Your task to perform on an android device: toggle notifications settings in the gmail app Image 0: 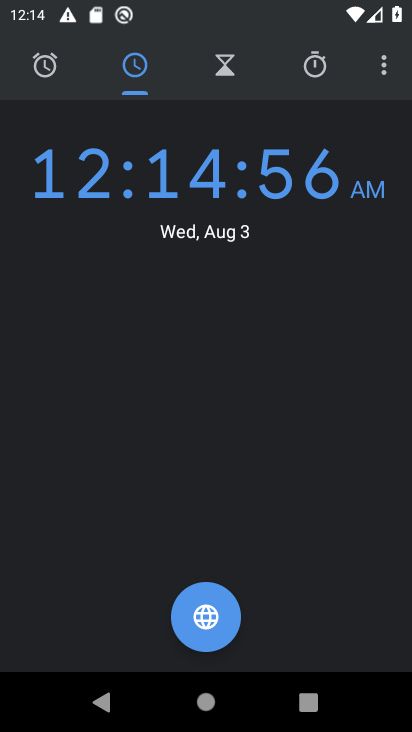
Step 0: press home button
Your task to perform on an android device: toggle notifications settings in the gmail app Image 1: 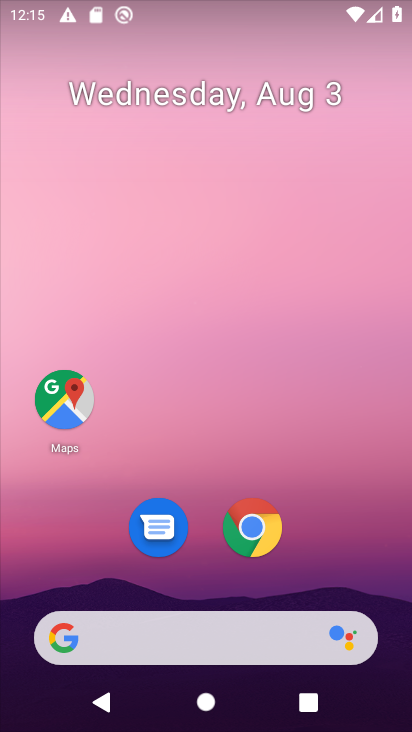
Step 1: drag from (40, 664) to (210, 191)
Your task to perform on an android device: toggle notifications settings in the gmail app Image 2: 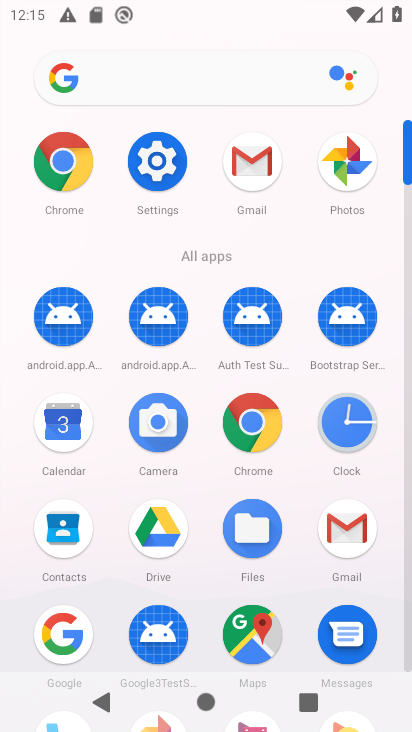
Step 2: click (321, 532)
Your task to perform on an android device: toggle notifications settings in the gmail app Image 3: 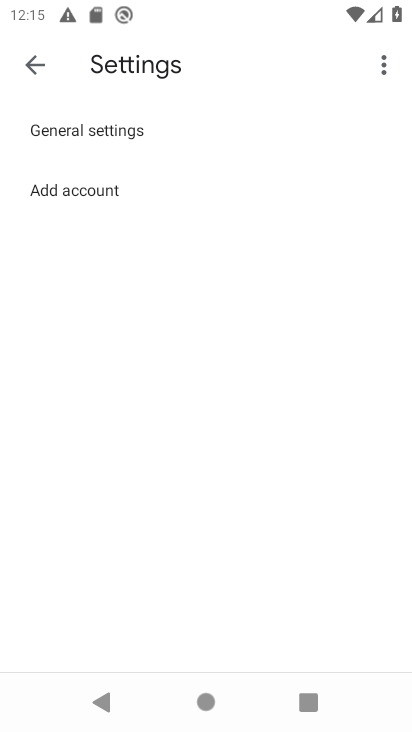
Step 3: click (21, 72)
Your task to perform on an android device: toggle notifications settings in the gmail app Image 4: 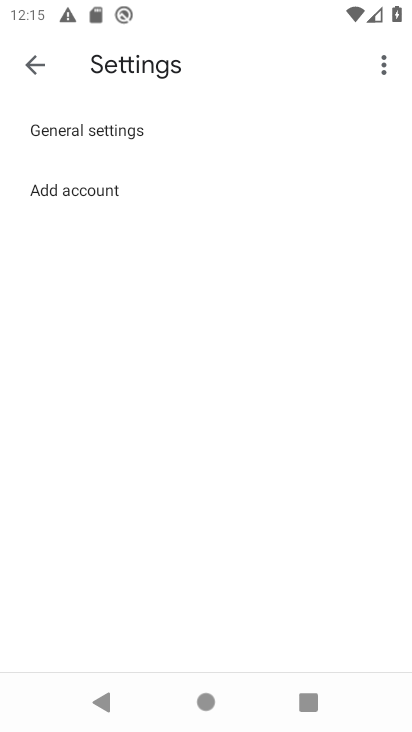
Step 4: click (32, 69)
Your task to perform on an android device: toggle notifications settings in the gmail app Image 5: 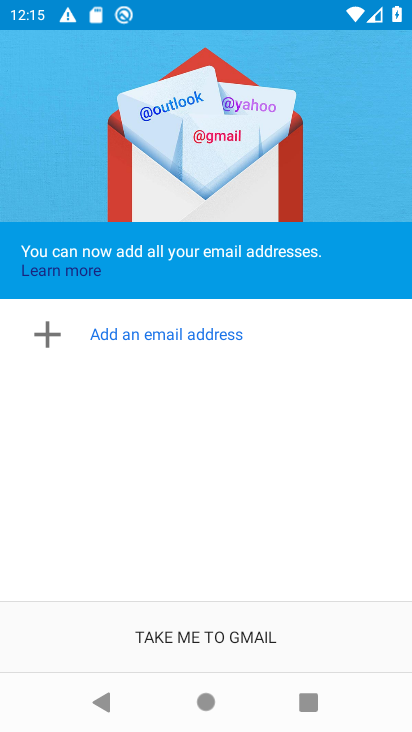
Step 5: click (204, 627)
Your task to perform on an android device: toggle notifications settings in the gmail app Image 6: 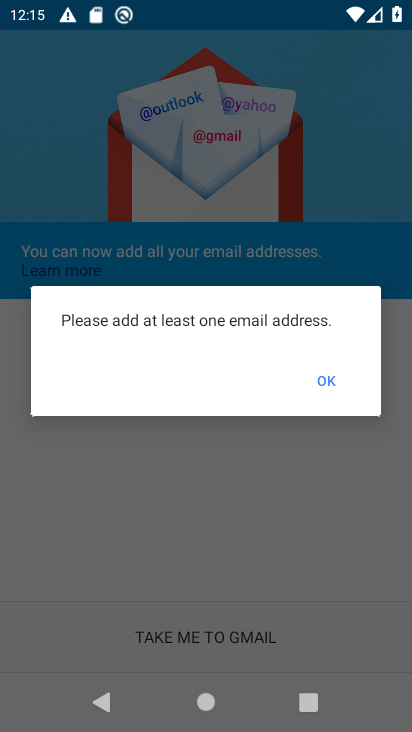
Step 6: click (335, 404)
Your task to perform on an android device: toggle notifications settings in the gmail app Image 7: 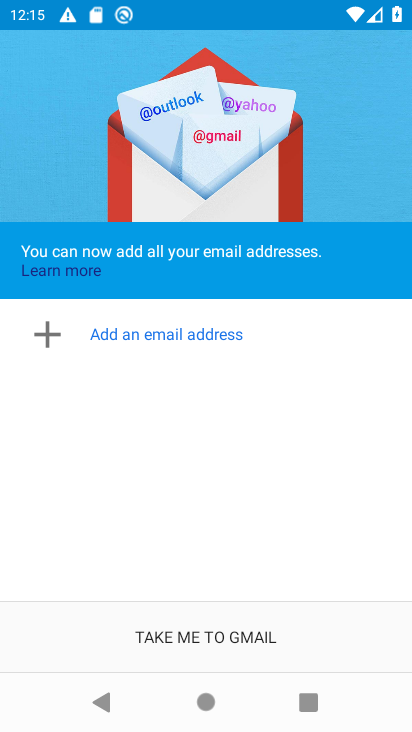
Step 7: click (329, 385)
Your task to perform on an android device: toggle notifications settings in the gmail app Image 8: 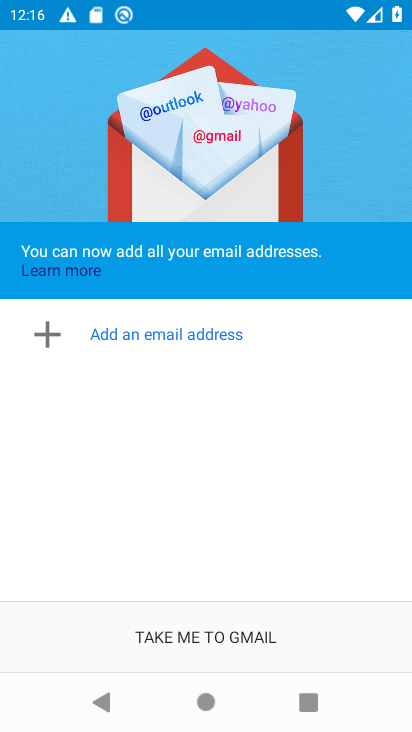
Step 8: task complete